Your task to perform on an android device: toggle airplane mode Image 0: 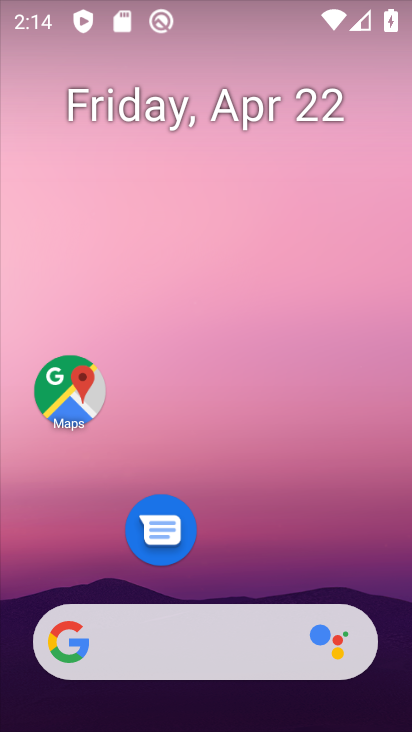
Step 0: drag from (259, 514) to (224, 2)
Your task to perform on an android device: toggle airplane mode Image 1: 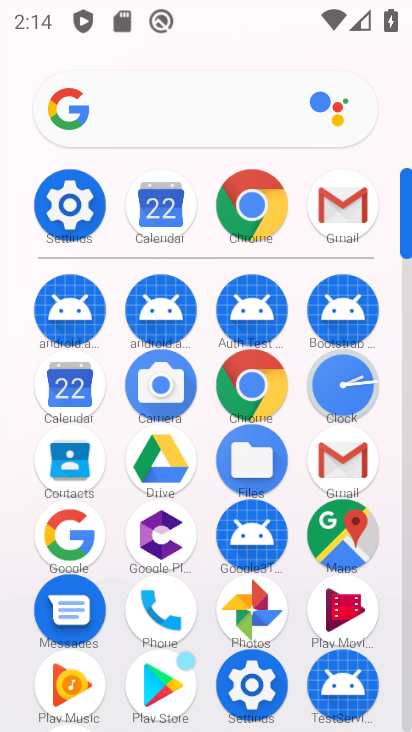
Step 1: click (77, 215)
Your task to perform on an android device: toggle airplane mode Image 2: 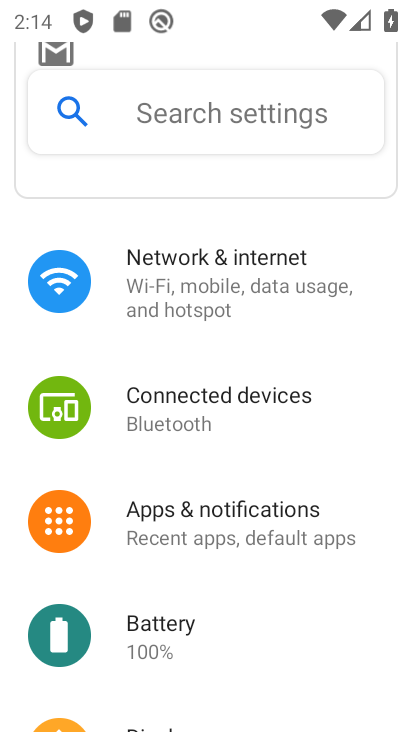
Step 2: click (189, 273)
Your task to perform on an android device: toggle airplane mode Image 3: 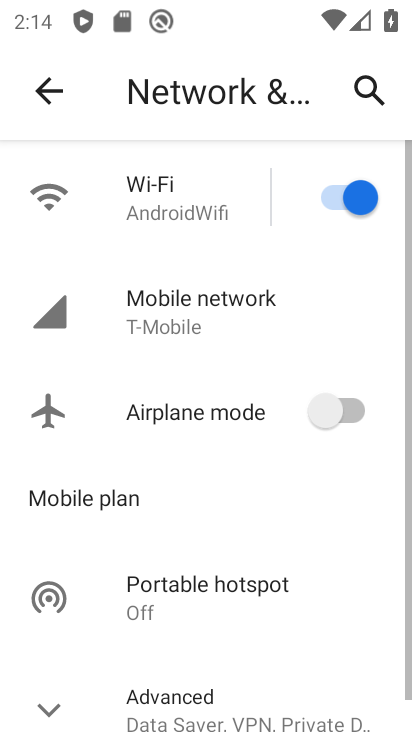
Step 3: click (332, 403)
Your task to perform on an android device: toggle airplane mode Image 4: 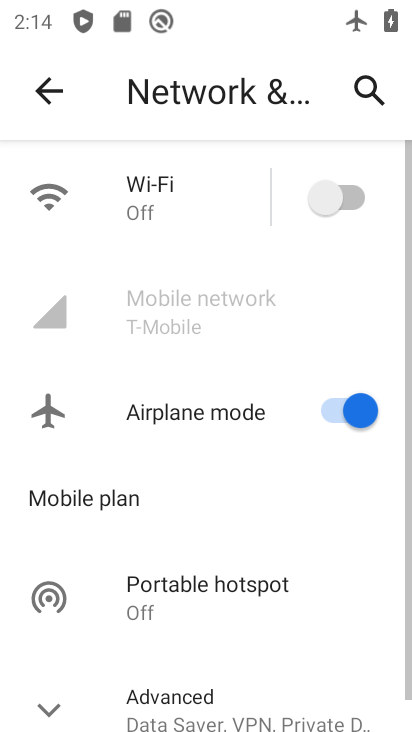
Step 4: task complete